Your task to perform on an android device: Show me recent news Image 0: 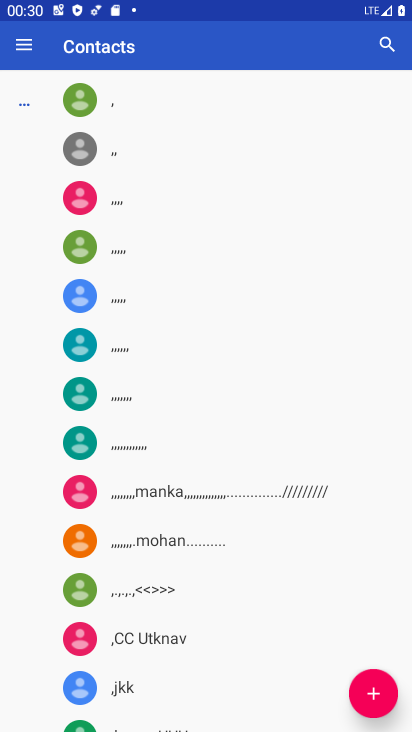
Step 0: press home button
Your task to perform on an android device: Show me recent news Image 1: 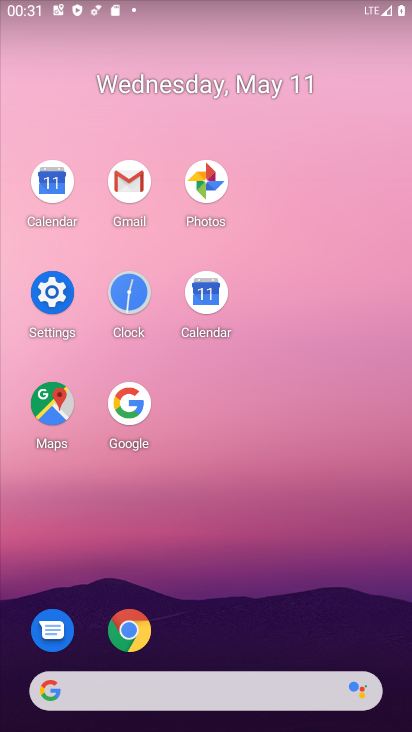
Step 1: click (124, 414)
Your task to perform on an android device: Show me recent news Image 2: 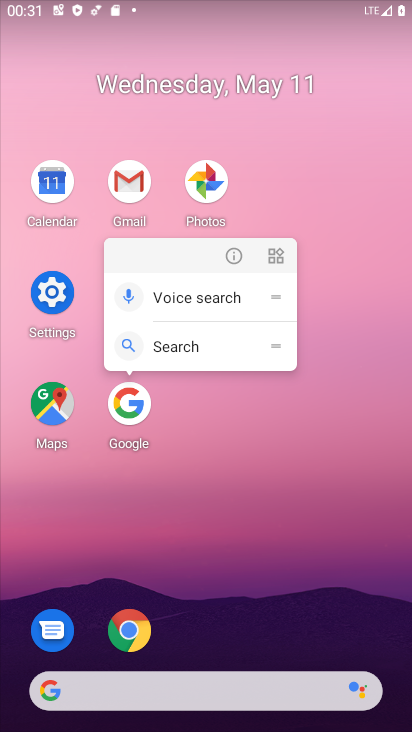
Step 2: click (140, 403)
Your task to perform on an android device: Show me recent news Image 3: 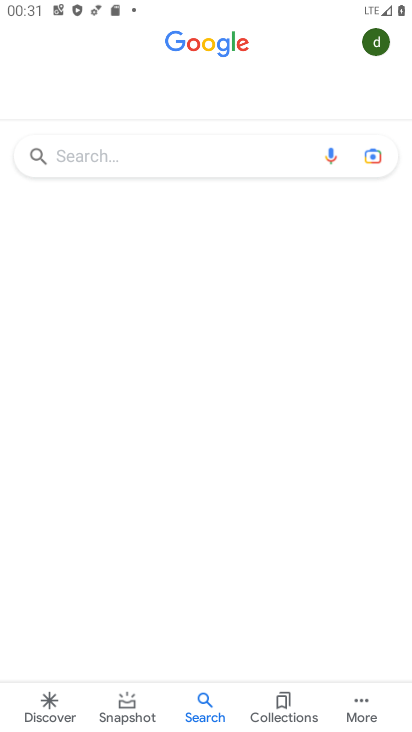
Step 3: click (185, 156)
Your task to perform on an android device: Show me recent news Image 4: 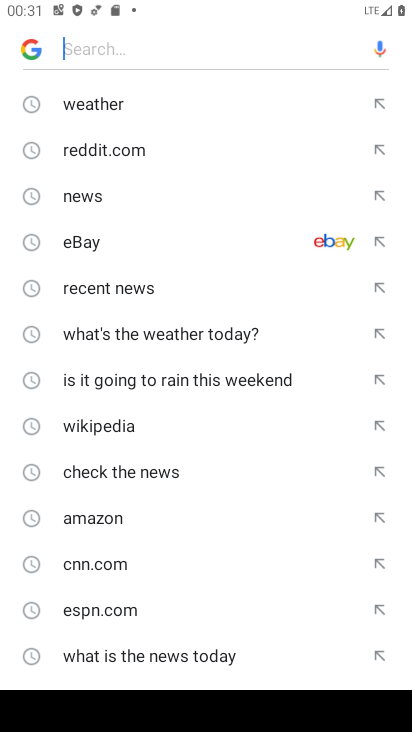
Step 4: click (131, 292)
Your task to perform on an android device: Show me recent news Image 5: 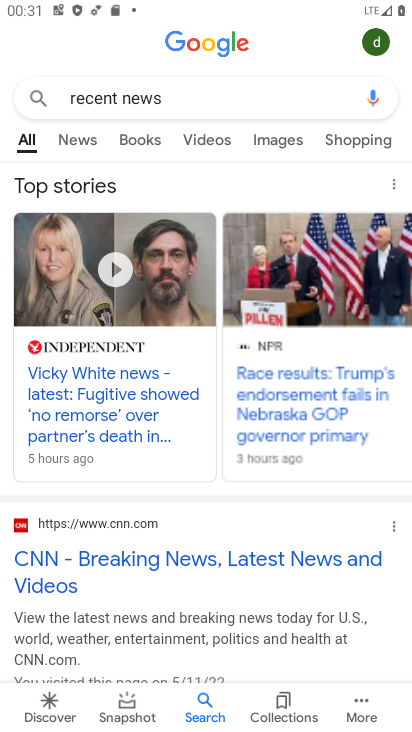
Step 5: task complete